Your task to perform on an android device: open chrome privacy settings Image 0: 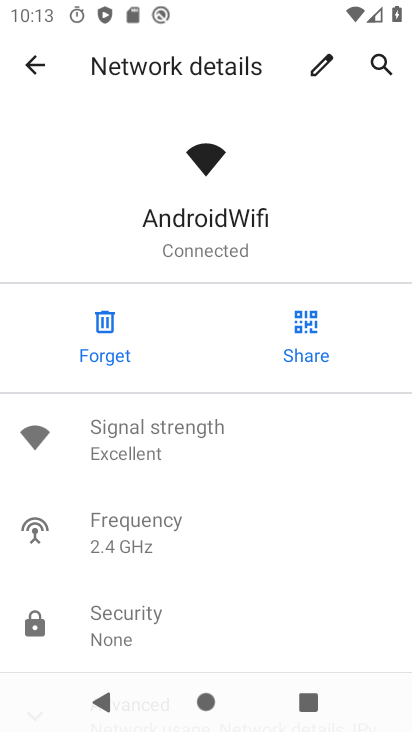
Step 0: press home button
Your task to perform on an android device: open chrome privacy settings Image 1: 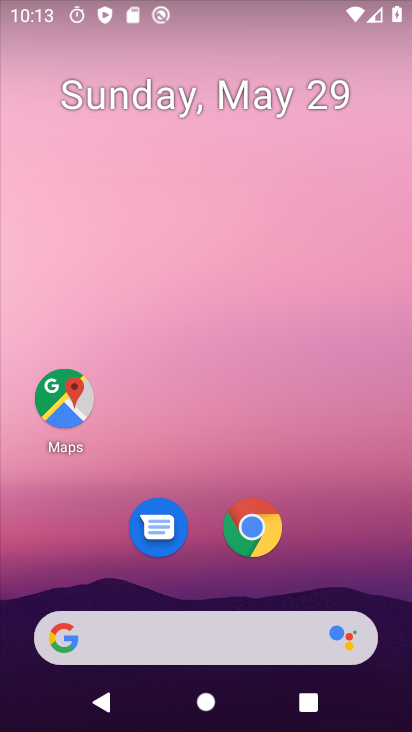
Step 1: drag from (306, 530) to (324, 138)
Your task to perform on an android device: open chrome privacy settings Image 2: 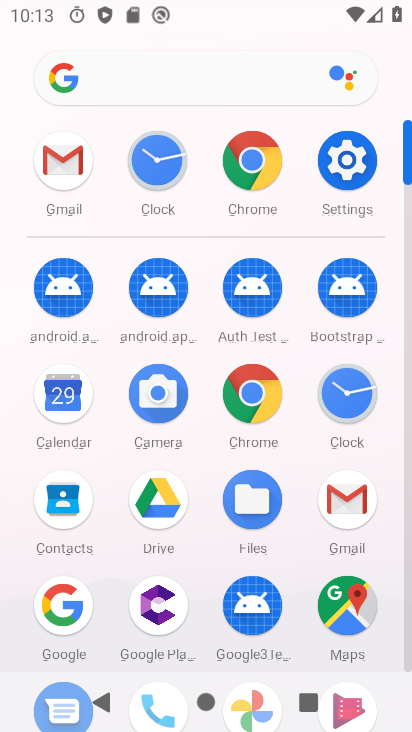
Step 2: click (249, 161)
Your task to perform on an android device: open chrome privacy settings Image 3: 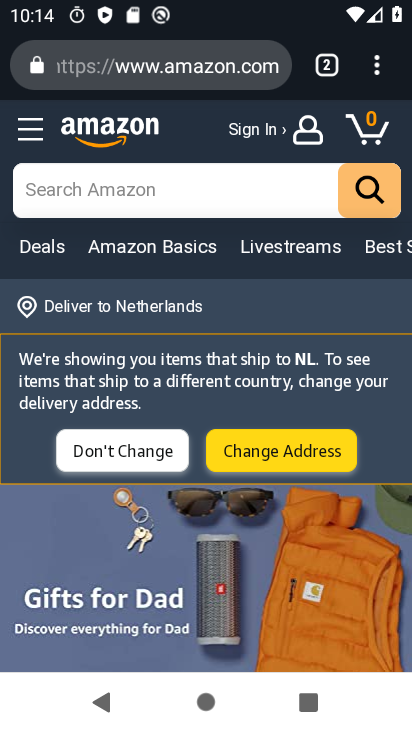
Step 3: drag from (372, 57) to (226, 575)
Your task to perform on an android device: open chrome privacy settings Image 4: 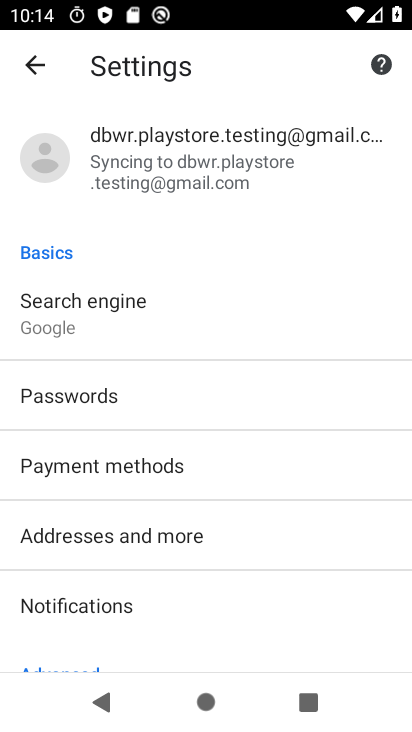
Step 4: drag from (274, 496) to (241, 268)
Your task to perform on an android device: open chrome privacy settings Image 5: 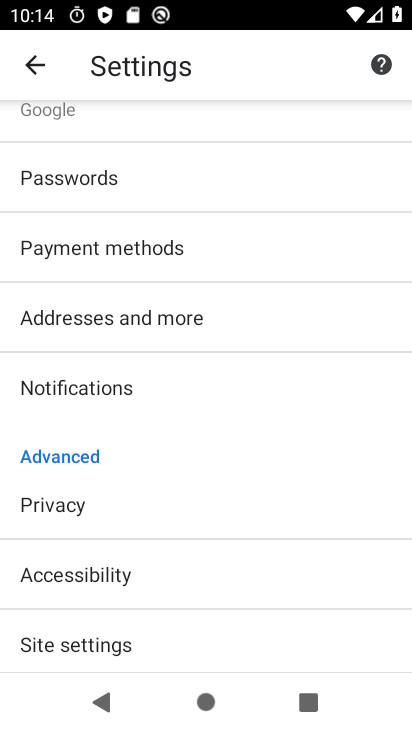
Step 5: drag from (193, 539) to (243, 224)
Your task to perform on an android device: open chrome privacy settings Image 6: 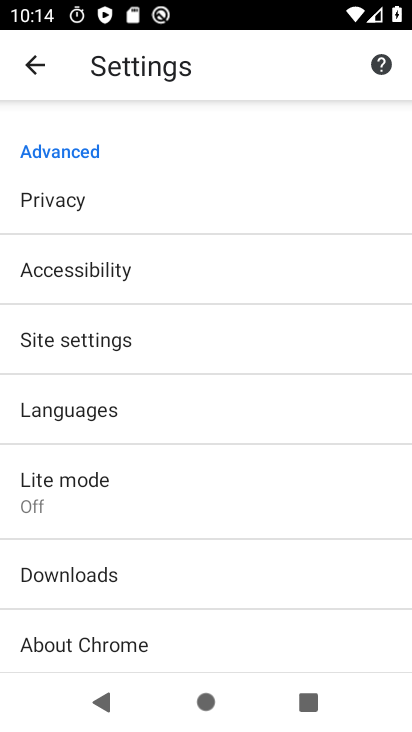
Step 6: click (76, 201)
Your task to perform on an android device: open chrome privacy settings Image 7: 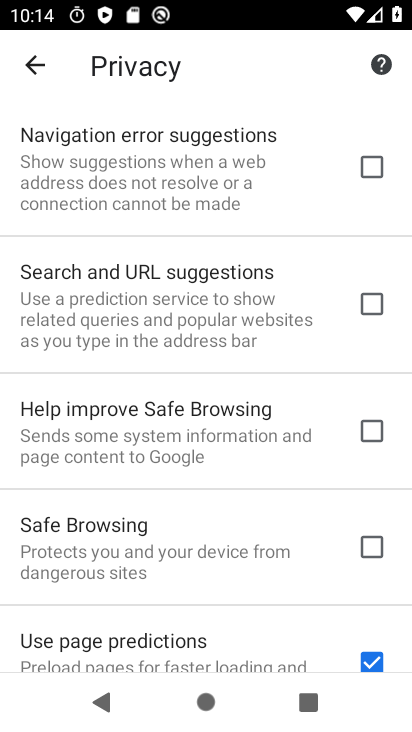
Step 7: task complete